Your task to perform on an android device: install app "Roku - Official Remote Control" Image 0: 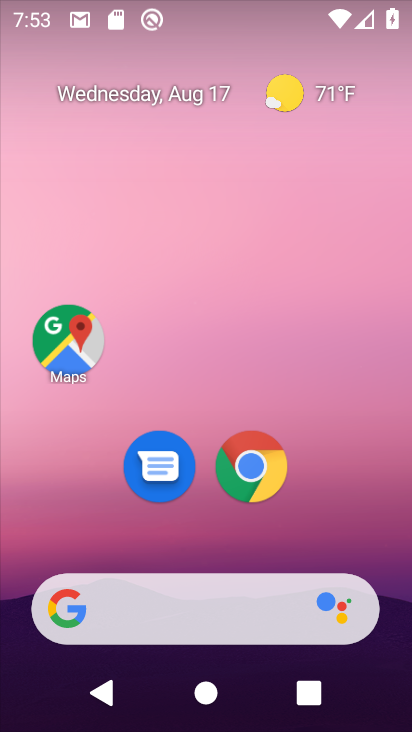
Step 0: drag from (202, 463) to (41, 15)
Your task to perform on an android device: install app "Roku - Official Remote Control" Image 1: 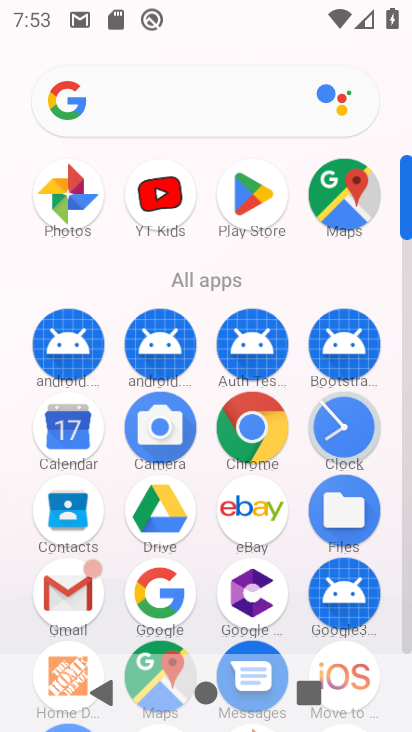
Step 1: click (259, 216)
Your task to perform on an android device: install app "Roku - Official Remote Control" Image 2: 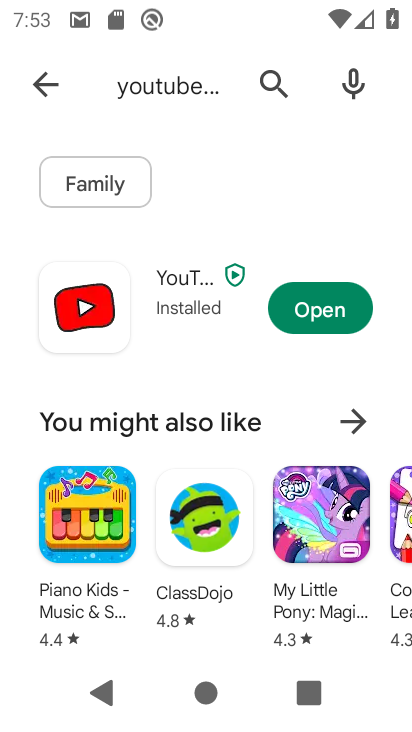
Step 2: click (207, 94)
Your task to perform on an android device: install app "Roku - Official Remote Control" Image 3: 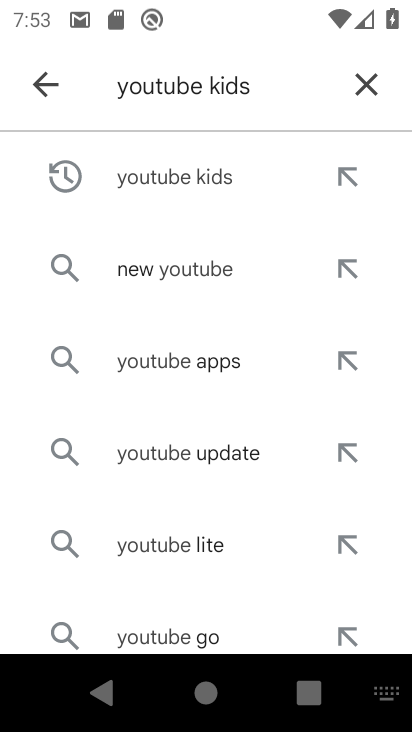
Step 3: click (366, 73)
Your task to perform on an android device: install app "Roku - Official Remote Control" Image 4: 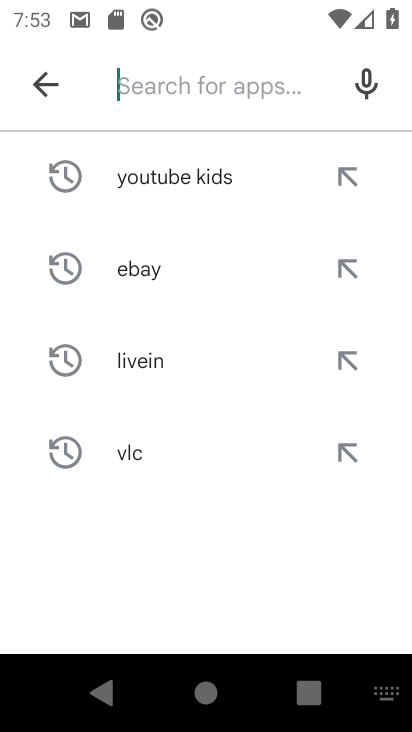
Step 4: type "Roku"
Your task to perform on an android device: install app "Roku - Official Remote Control" Image 5: 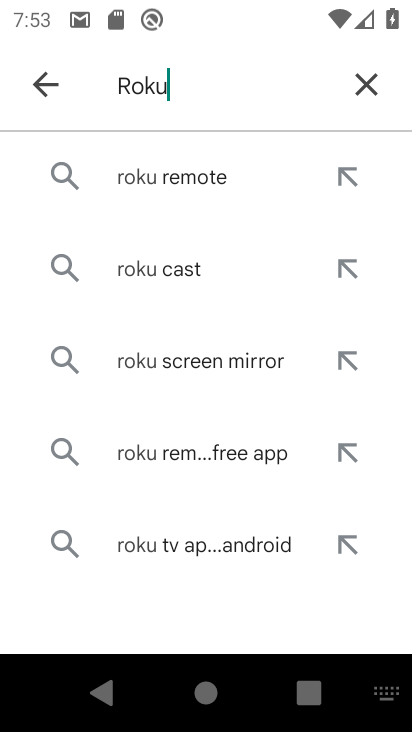
Step 5: click (146, 177)
Your task to perform on an android device: install app "Roku - Official Remote Control" Image 6: 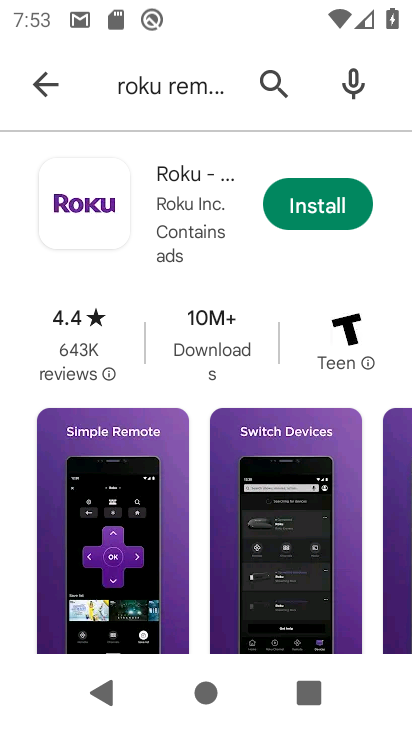
Step 6: click (354, 207)
Your task to perform on an android device: install app "Roku - Official Remote Control" Image 7: 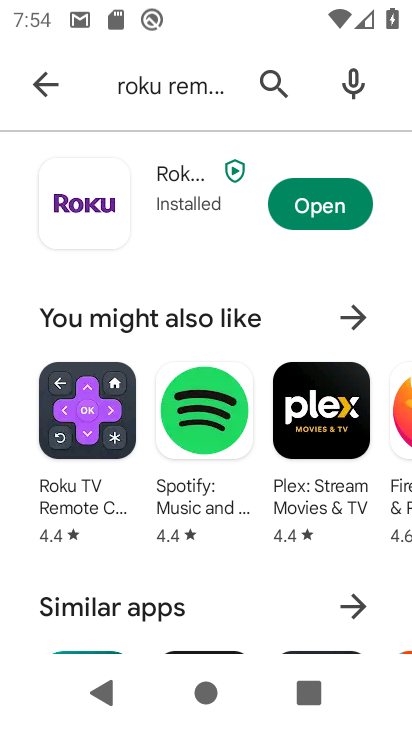
Step 7: task complete